Your task to perform on an android device: Open battery settings Image 0: 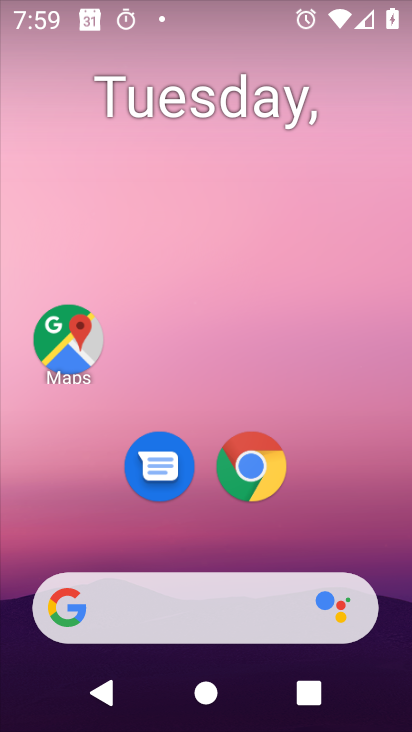
Step 0: drag from (0, 0) to (258, 155)
Your task to perform on an android device: Open battery settings Image 1: 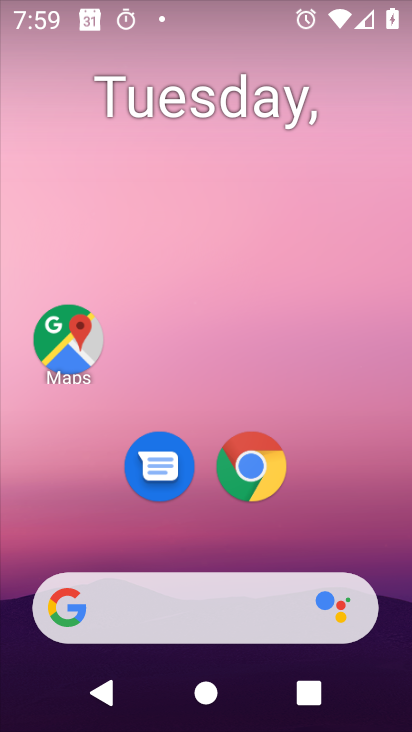
Step 1: drag from (65, 520) to (252, 150)
Your task to perform on an android device: Open battery settings Image 2: 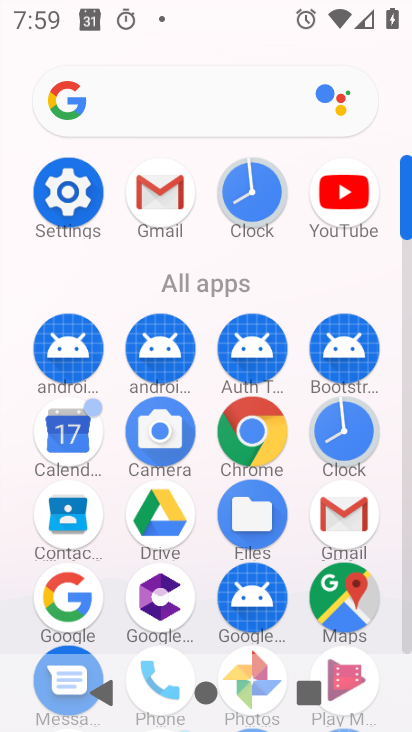
Step 2: click (72, 203)
Your task to perform on an android device: Open battery settings Image 3: 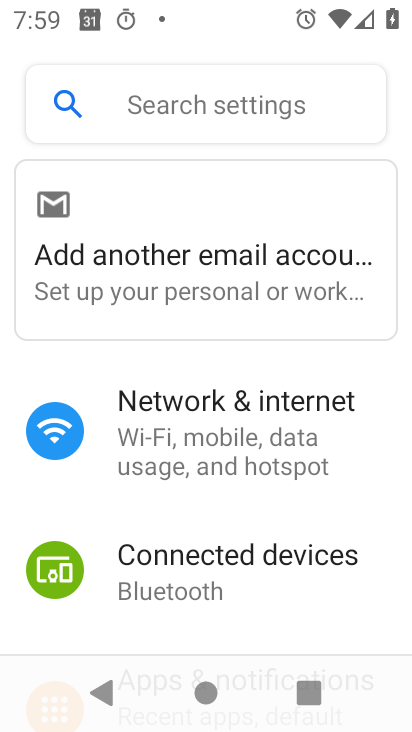
Step 3: drag from (28, 511) to (214, 206)
Your task to perform on an android device: Open battery settings Image 4: 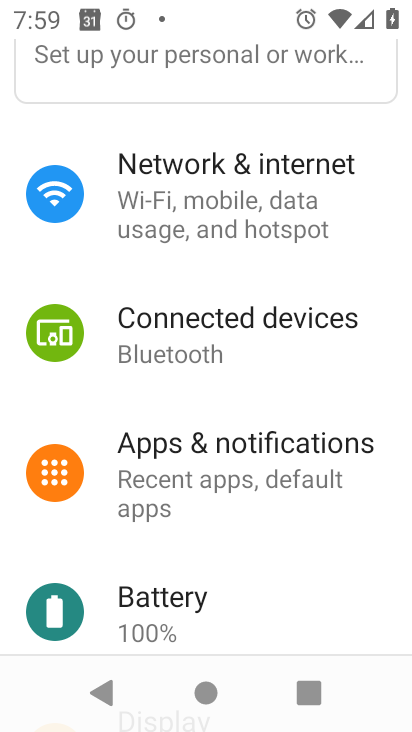
Step 4: click (93, 617)
Your task to perform on an android device: Open battery settings Image 5: 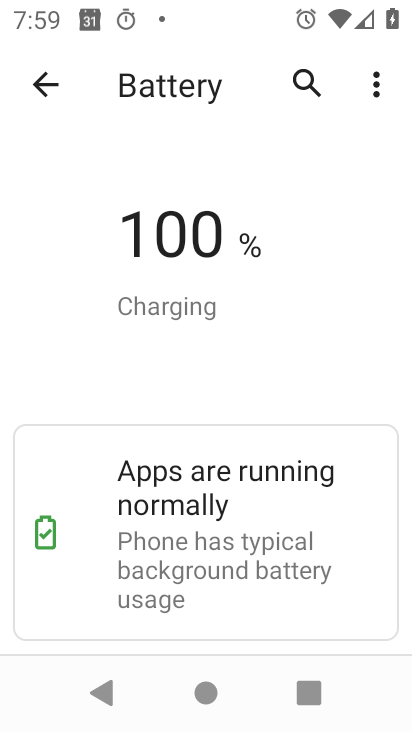
Step 5: task complete